Your task to perform on an android device: turn off location history Image 0: 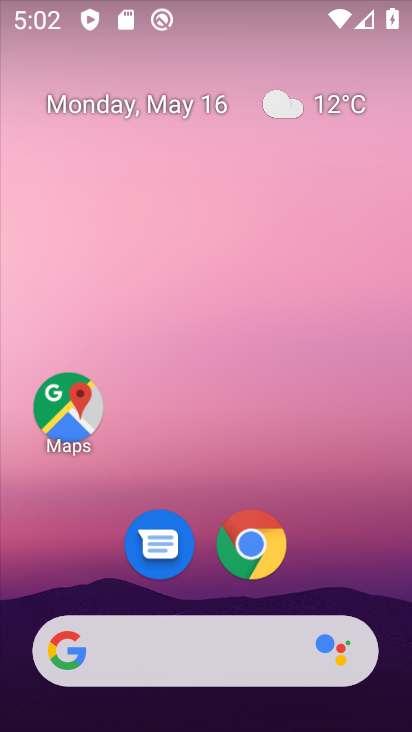
Step 0: drag from (317, 563) to (272, 64)
Your task to perform on an android device: turn off location history Image 1: 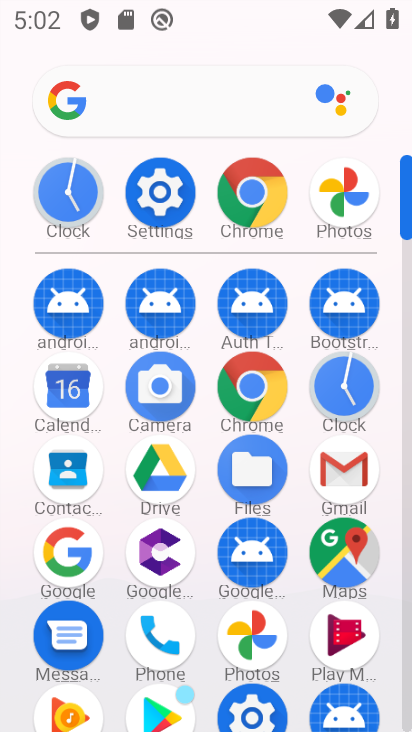
Step 1: click (159, 192)
Your task to perform on an android device: turn off location history Image 2: 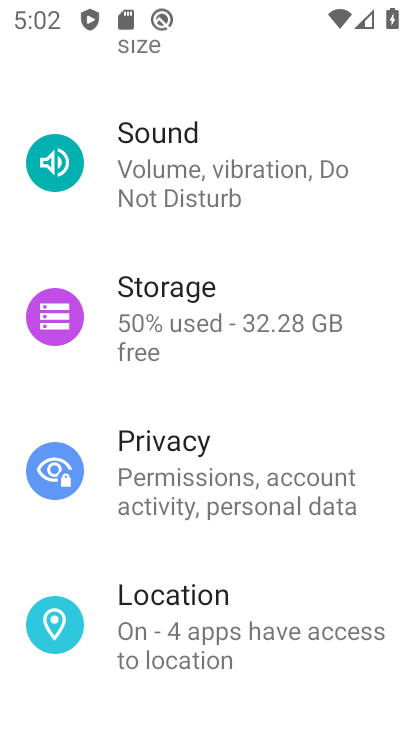
Step 2: drag from (202, 402) to (225, 341)
Your task to perform on an android device: turn off location history Image 3: 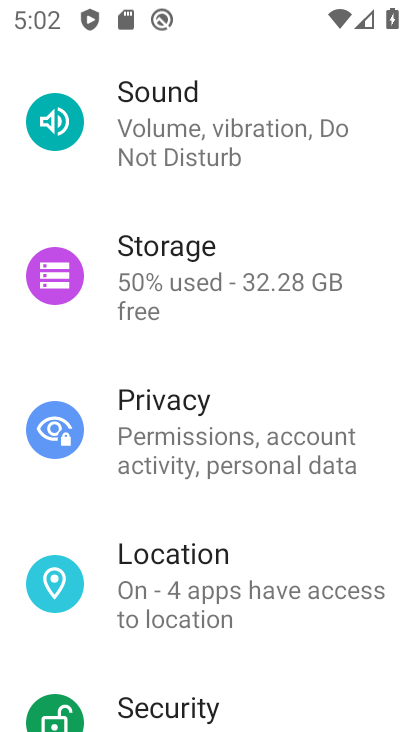
Step 3: drag from (206, 506) to (282, 398)
Your task to perform on an android device: turn off location history Image 4: 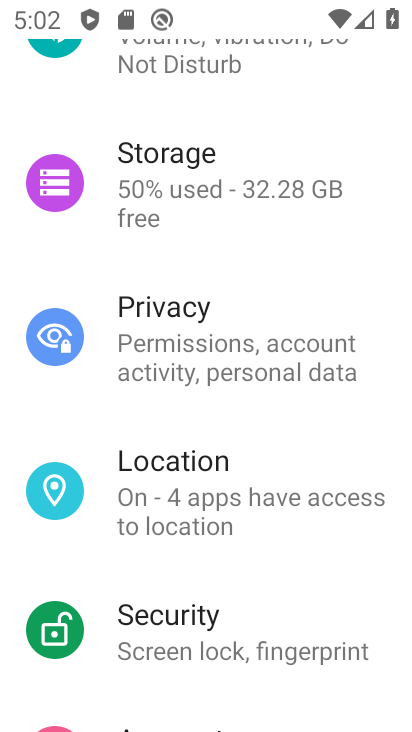
Step 4: click (201, 453)
Your task to perform on an android device: turn off location history Image 5: 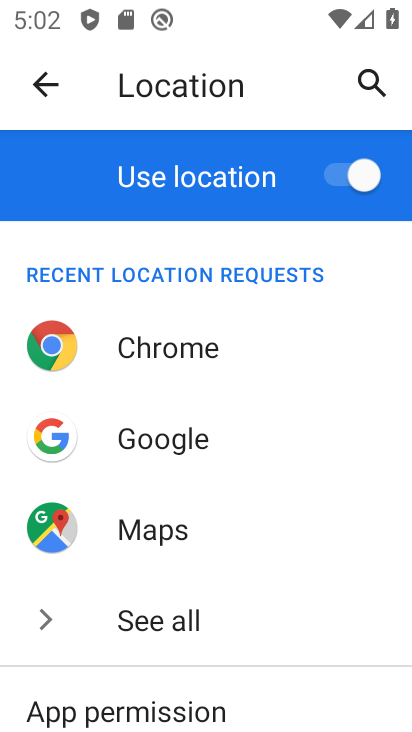
Step 5: drag from (171, 502) to (209, 415)
Your task to perform on an android device: turn off location history Image 6: 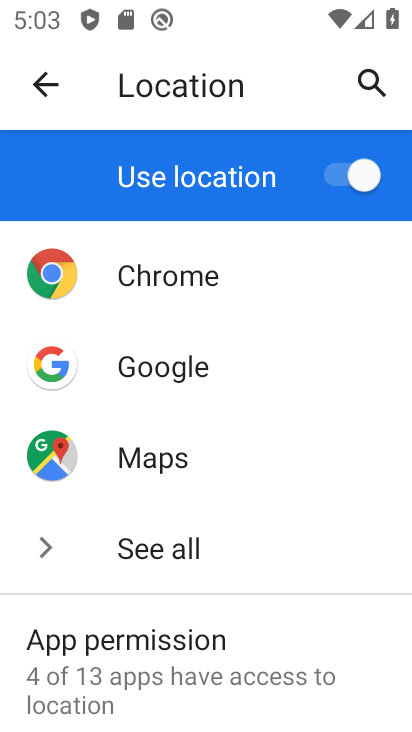
Step 6: drag from (137, 619) to (230, 442)
Your task to perform on an android device: turn off location history Image 7: 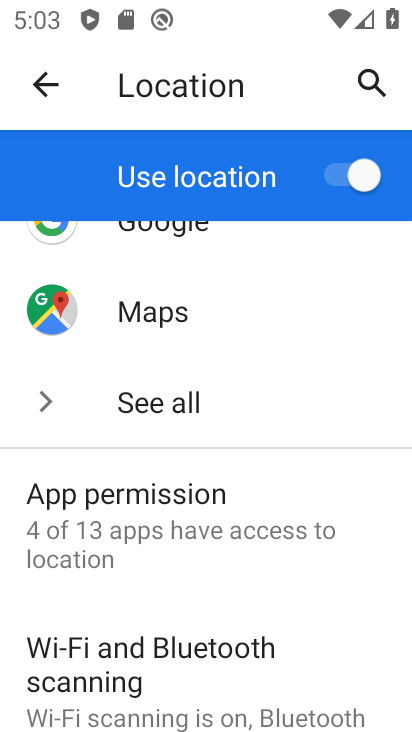
Step 7: drag from (159, 578) to (234, 426)
Your task to perform on an android device: turn off location history Image 8: 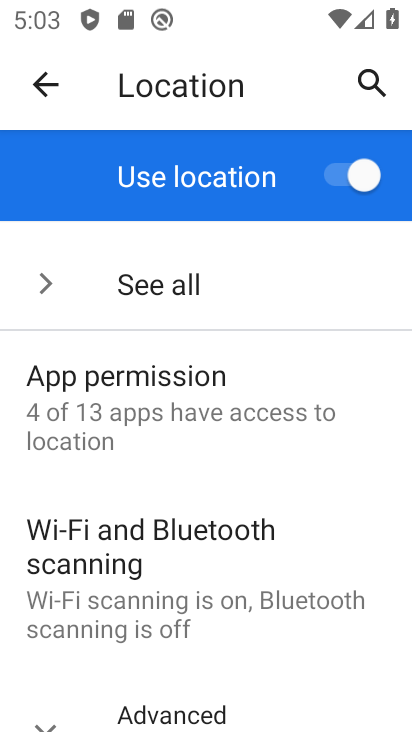
Step 8: drag from (168, 668) to (261, 489)
Your task to perform on an android device: turn off location history Image 9: 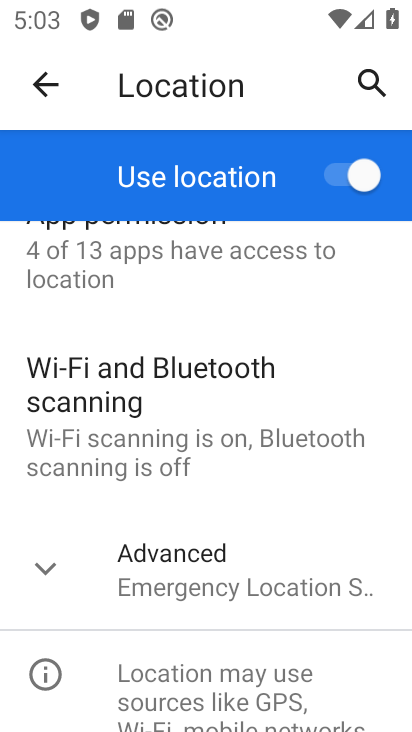
Step 9: click (189, 583)
Your task to perform on an android device: turn off location history Image 10: 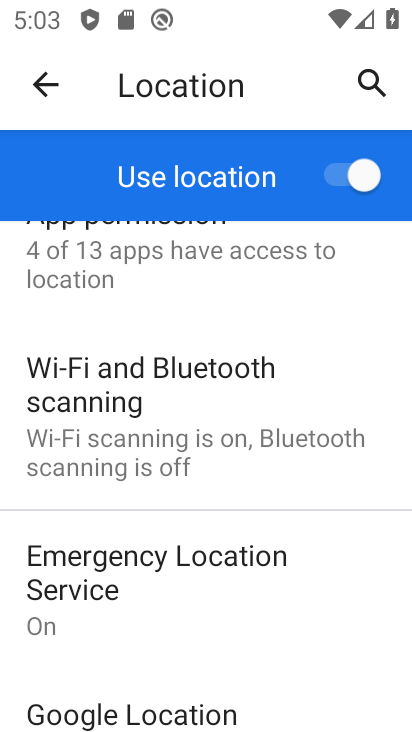
Step 10: drag from (169, 618) to (259, 474)
Your task to perform on an android device: turn off location history Image 11: 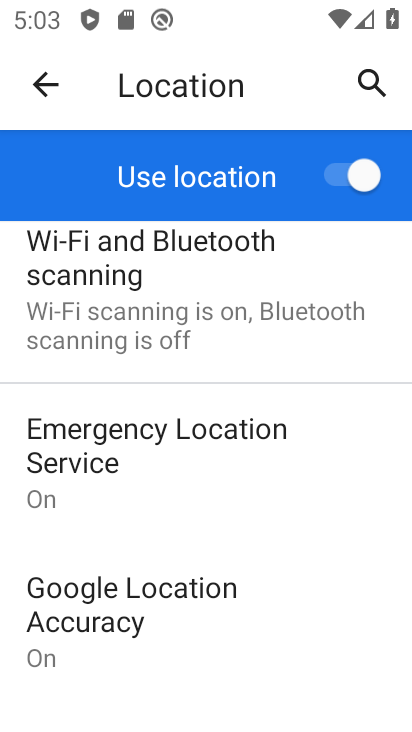
Step 11: drag from (194, 640) to (276, 505)
Your task to perform on an android device: turn off location history Image 12: 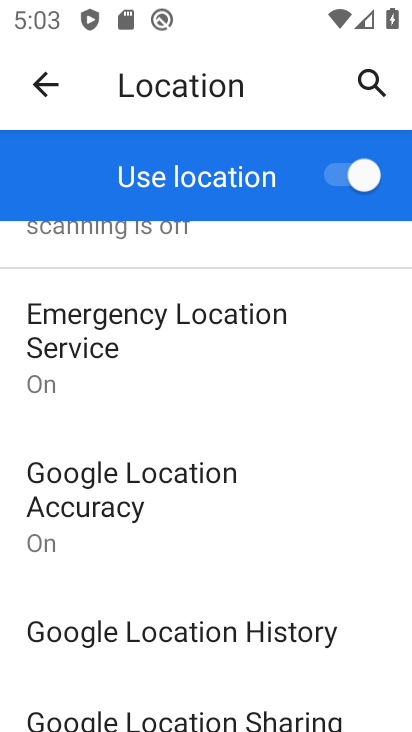
Step 12: drag from (195, 600) to (278, 499)
Your task to perform on an android device: turn off location history Image 13: 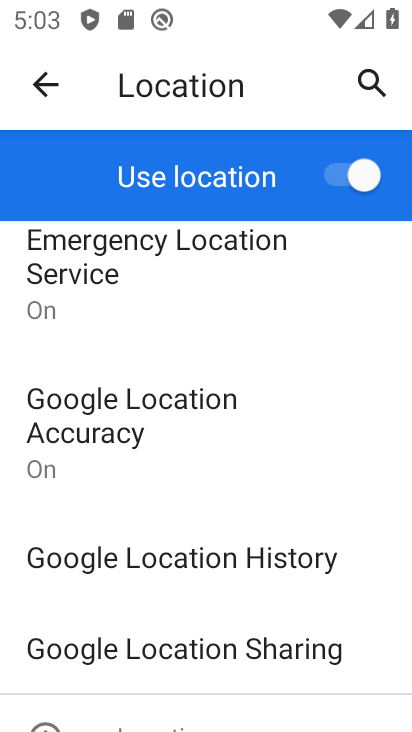
Step 13: click (253, 552)
Your task to perform on an android device: turn off location history Image 14: 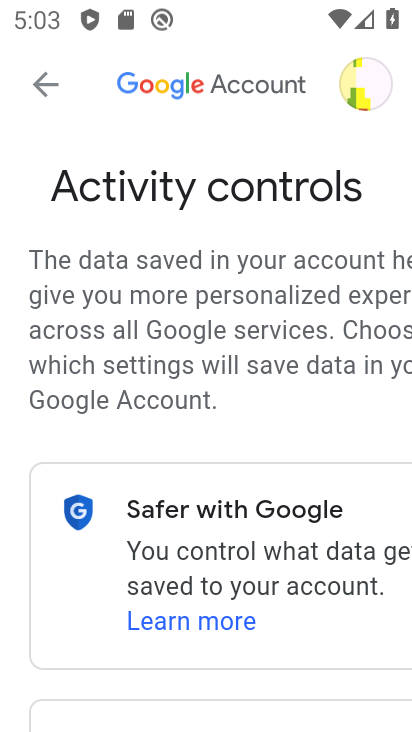
Step 14: drag from (197, 673) to (254, 432)
Your task to perform on an android device: turn off location history Image 15: 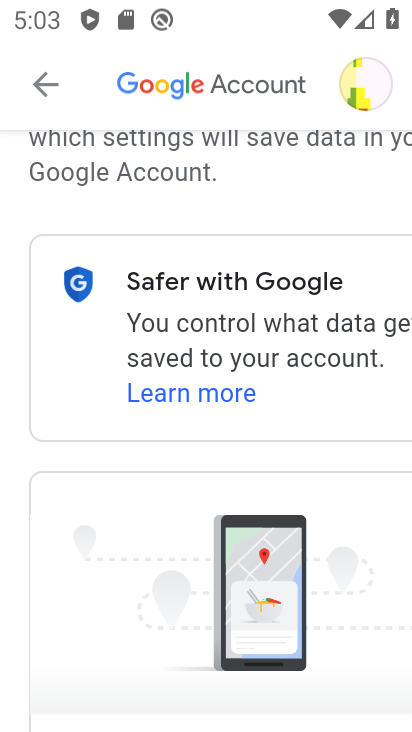
Step 15: drag from (150, 598) to (193, 420)
Your task to perform on an android device: turn off location history Image 16: 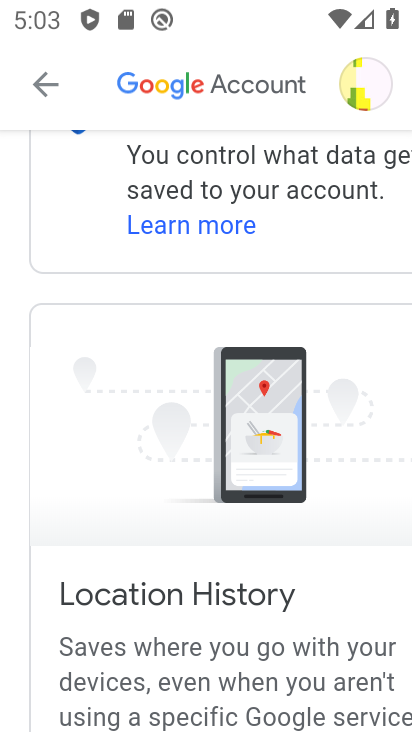
Step 16: drag from (153, 566) to (206, 402)
Your task to perform on an android device: turn off location history Image 17: 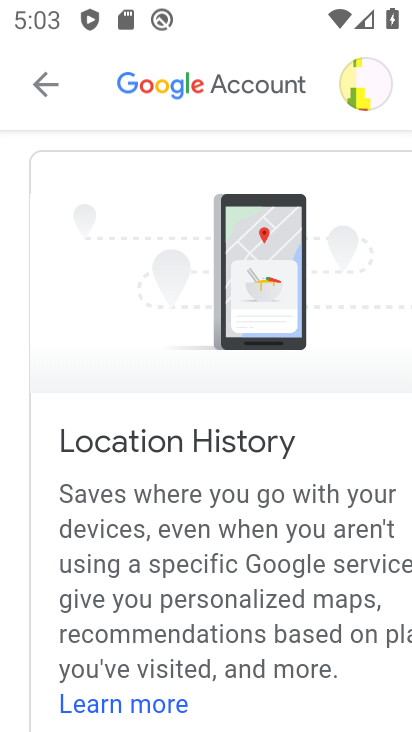
Step 17: drag from (174, 567) to (206, 413)
Your task to perform on an android device: turn off location history Image 18: 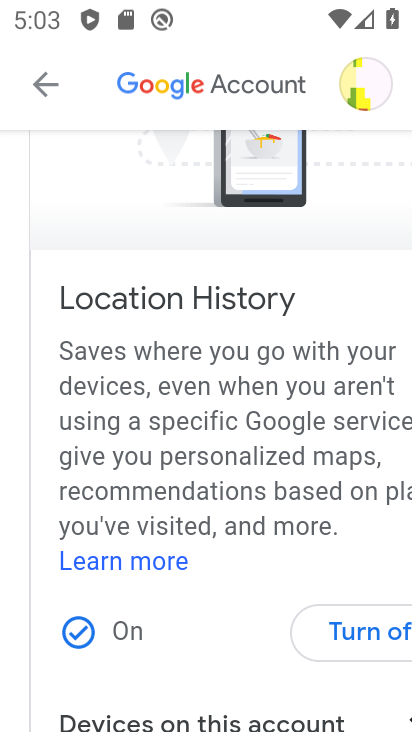
Step 18: drag from (196, 619) to (237, 490)
Your task to perform on an android device: turn off location history Image 19: 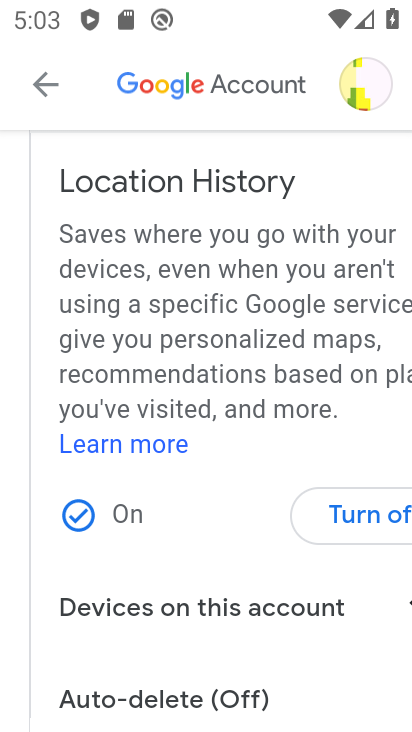
Step 19: click (357, 514)
Your task to perform on an android device: turn off location history Image 20: 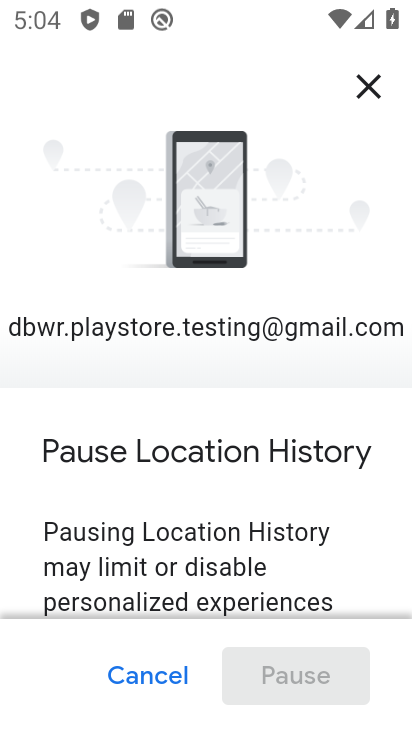
Step 20: drag from (199, 545) to (279, 349)
Your task to perform on an android device: turn off location history Image 21: 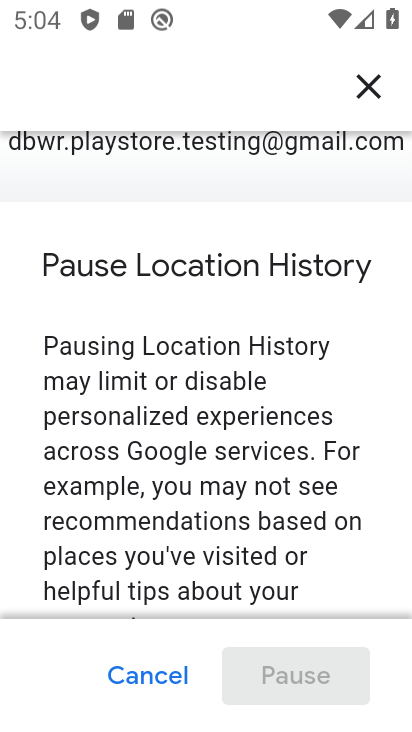
Step 21: drag from (217, 546) to (251, 382)
Your task to perform on an android device: turn off location history Image 22: 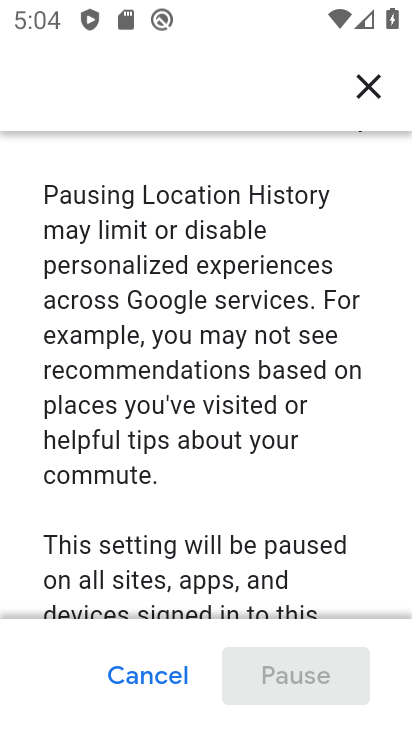
Step 22: drag from (255, 517) to (284, 350)
Your task to perform on an android device: turn off location history Image 23: 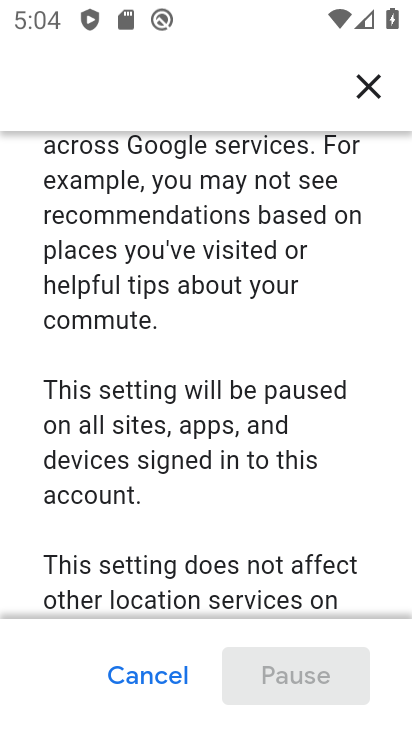
Step 23: drag from (243, 522) to (286, 355)
Your task to perform on an android device: turn off location history Image 24: 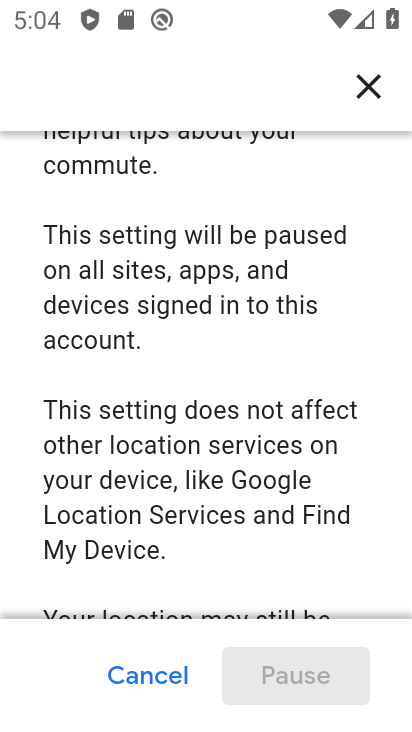
Step 24: drag from (230, 535) to (252, 368)
Your task to perform on an android device: turn off location history Image 25: 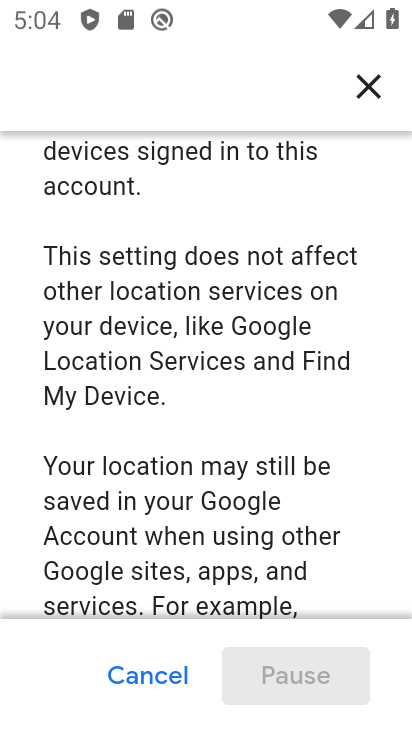
Step 25: drag from (234, 532) to (272, 346)
Your task to perform on an android device: turn off location history Image 26: 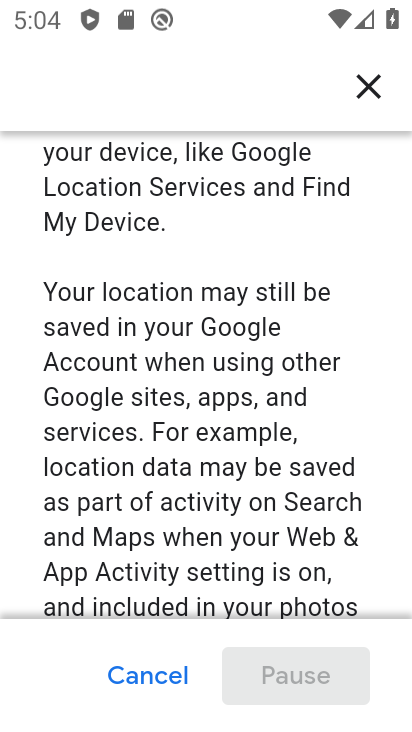
Step 26: drag from (234, 579) to (273, 395)
Your task to perform on an android device: turn off location history Image 27: 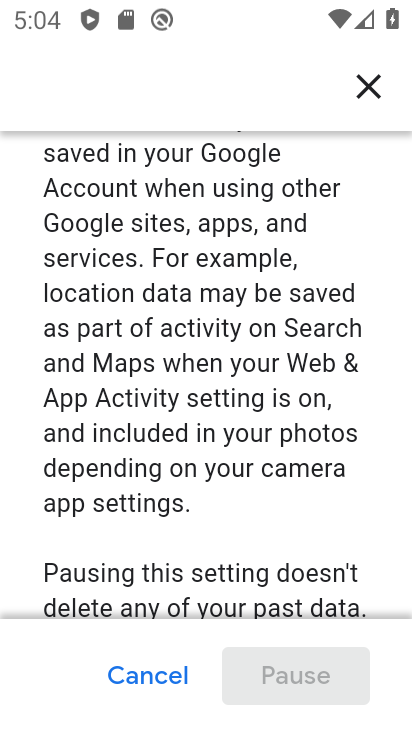
Step 27: drag from (255, 559) to (261, 406)
Your task to perform on an android device: turn off location history Image 28: 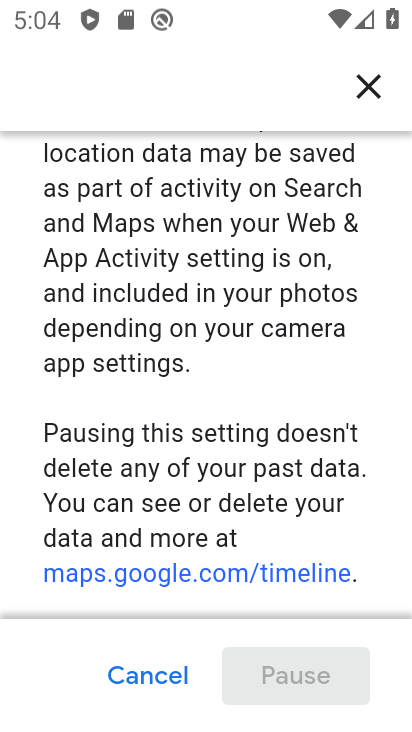
Step 28: drag from (251, 557) to (301, 363)
Your task to perform on an android device: turn off location history Image 29: 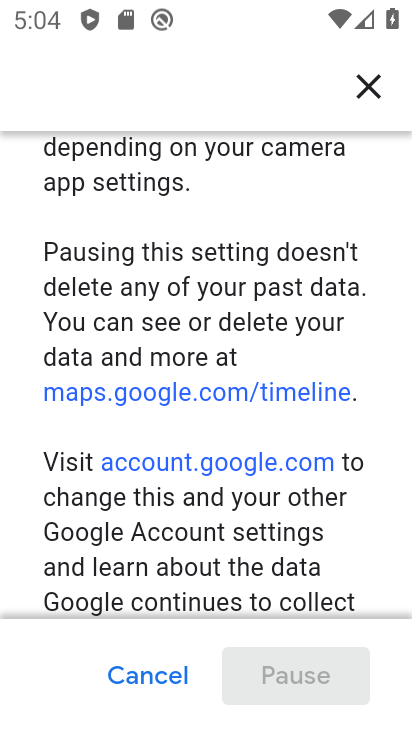
Step 29: drag from (276, 541) to (313, 312)
Your task to perform on an android device: turn off location history Image 30: 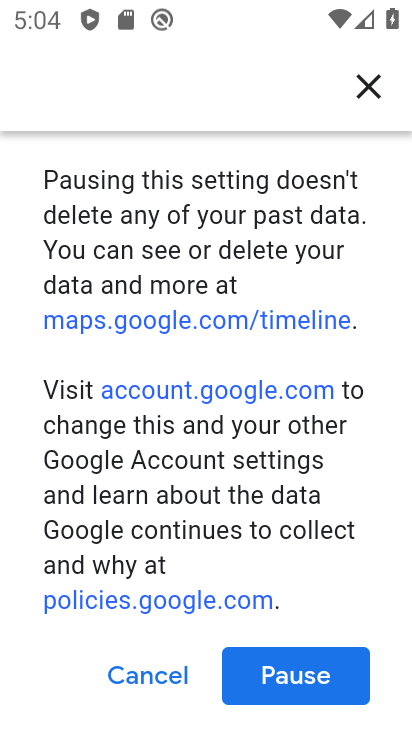
Step 30: click (284, 680)
Your task to perform on an android device: turn off location history Image 31: 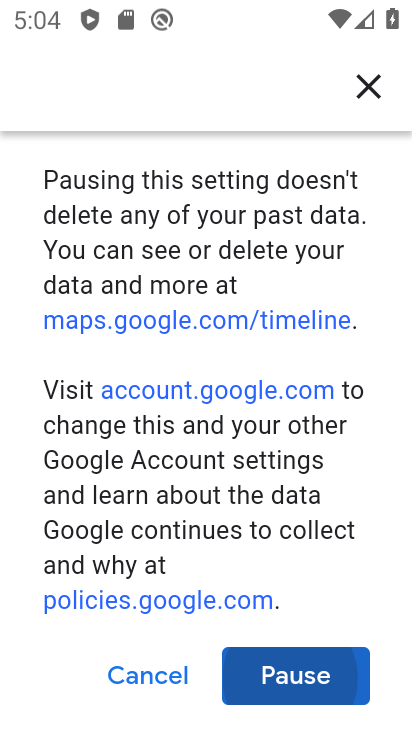
Step 31: click (284, 680)
Your task to perform on an android device: turn off location history Image 32: 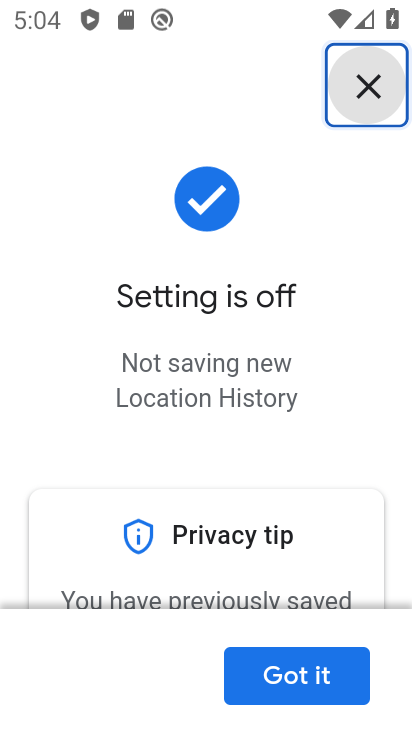
Step 32: click (286, 677)
Your task to perform on an android device: turn off location history Image 33: 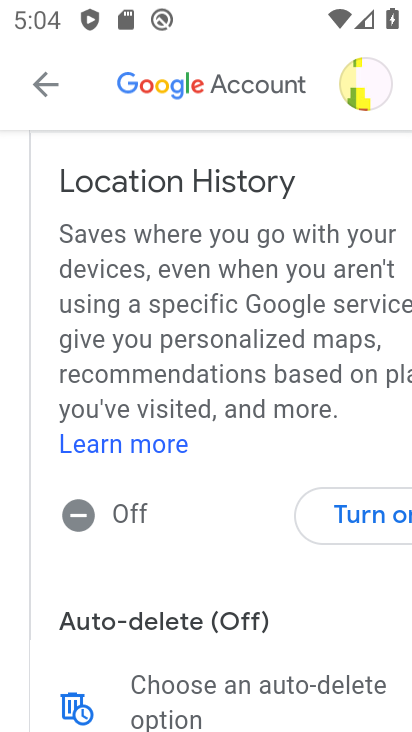
Step 33: task complete